Your task to perform on an android device: turn on the 24-hour format for clock Image 0: 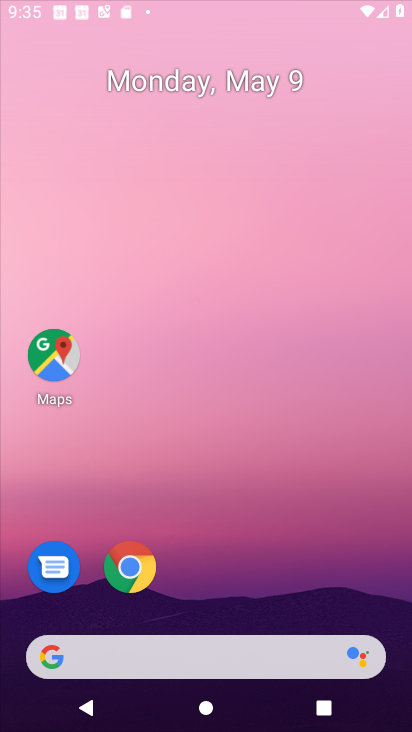
Step 0: click (347, 15)
Your task to perform on an android device: turn on the 24-hour format for clock Image 1: 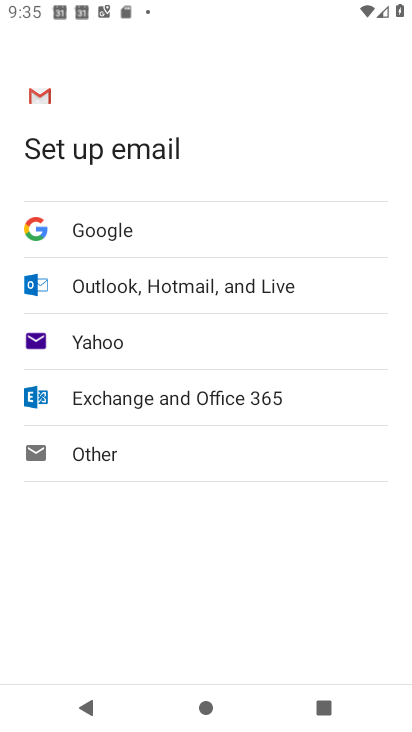
Step 1: drag from (156, 561) to (208, 278)
Your task to perform on an android device: turn on the 24-hour format for clock Image 2: 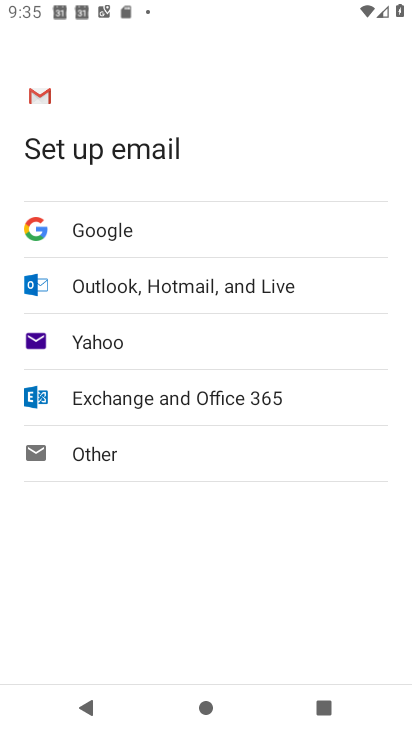
Step 2: press home button
Your task to perform on an android device: turn on the 24-hour format for clock Image 3: 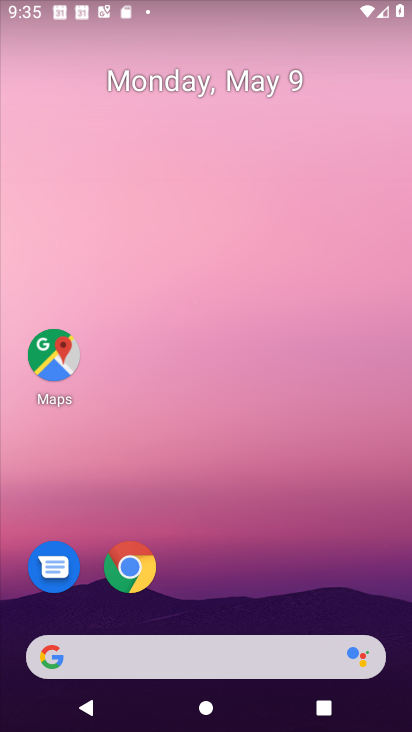
Step 3: drag from (219, 599) to (290, 192)
Your task to perform on an android device: turn on the 24-hour format for clock Image 4: 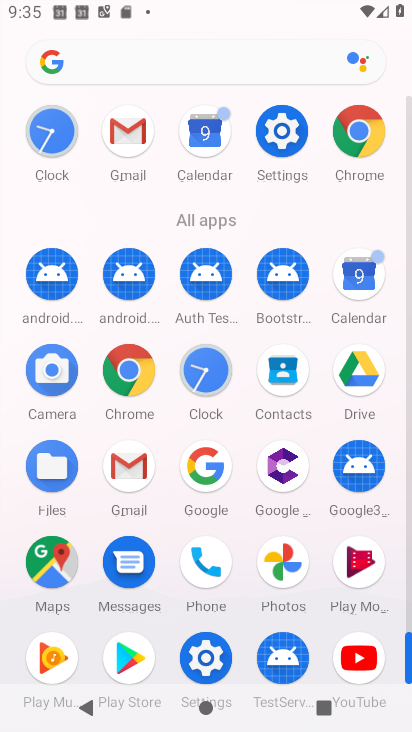
Step 4: click (205, 380)
Your task to perform on an android device: turn on the 24-hour format for clock Image 5: 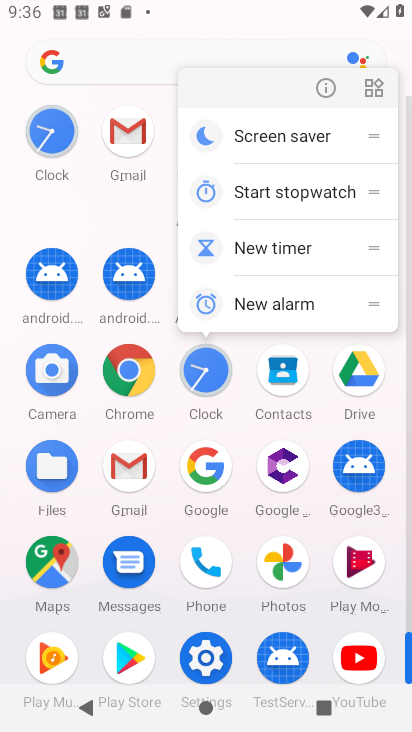
Step 5: click (316, 76)
Your task to perform on an android device: turn on the 24-hour format for clock Image 6: 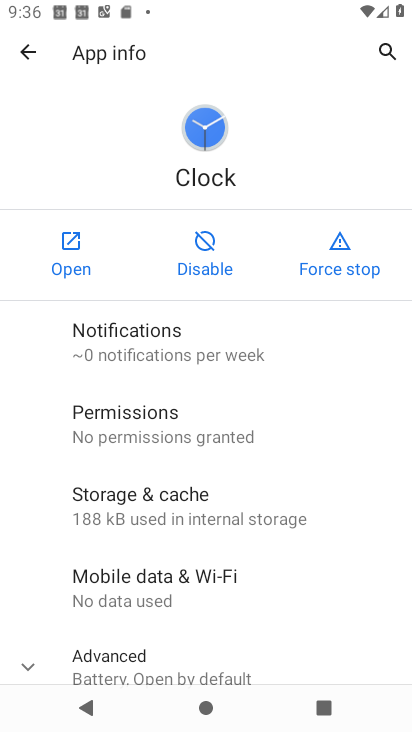
Step 6: click (85, 243)
Your task to perform on an android device: turn on the 24-hour format for clock Image 7: 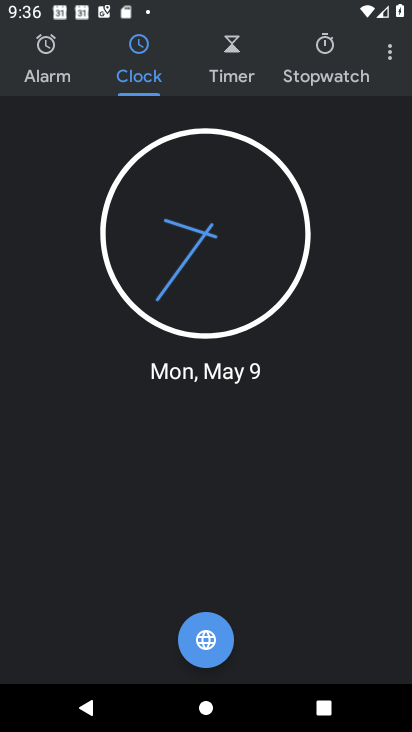
Step 7: click (391, 45)
Your task to perform on an android device: turn on the 24-hour format for clock Image 8: 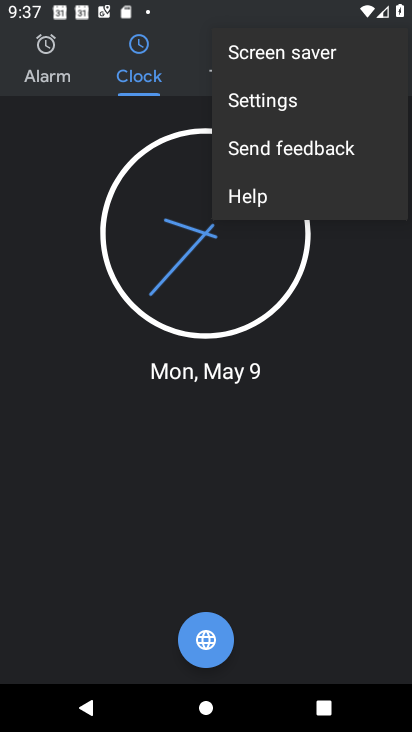
Step 8: click (274, 97)
Your task to perform on an android device: turn on the 24-hour format for clock Image 9: 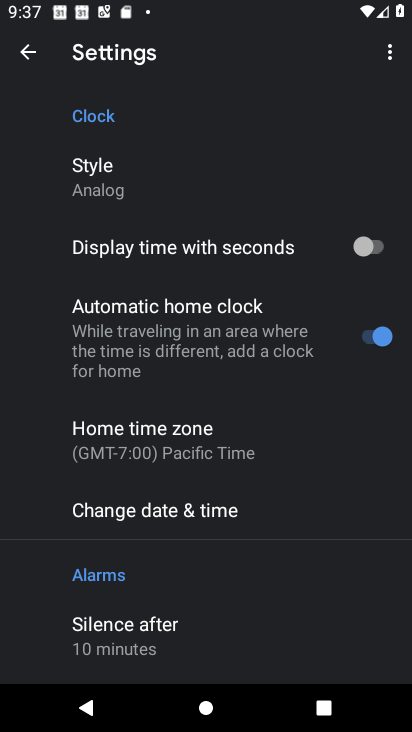
Step 9: click (184, 511)
Your task to perform on an android device: turn on the 24-hour format for clock Image 10: 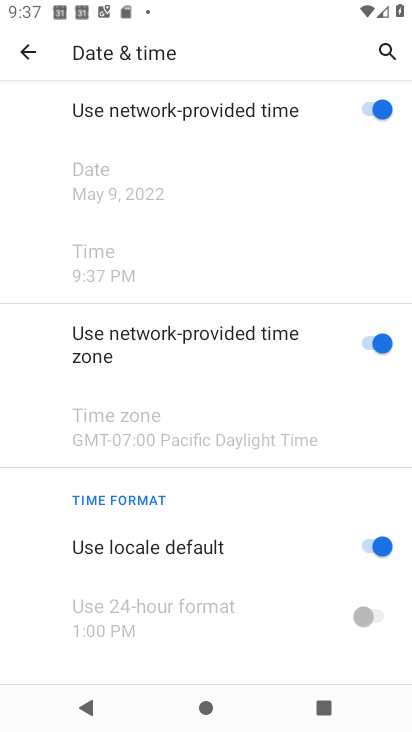
Step 10: drag from (238, 572) to (331, 235)
Your task to perform on an android device: turn on the 24-hour format for clock Image 11: 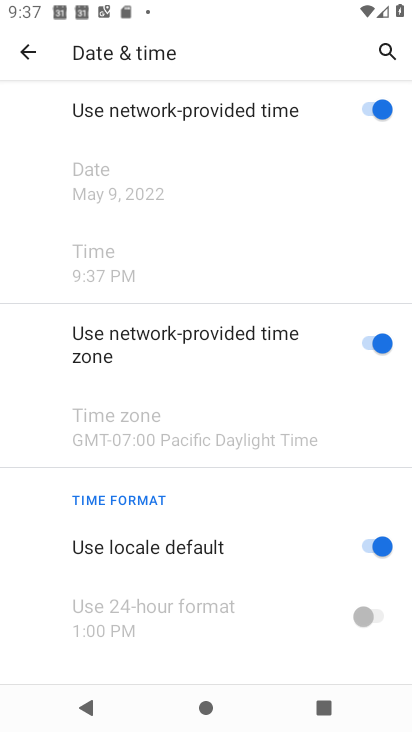
Step 11: click (369, 546)
Your task to perform on an android device: turn on the 24-hour format for clock Image 12: 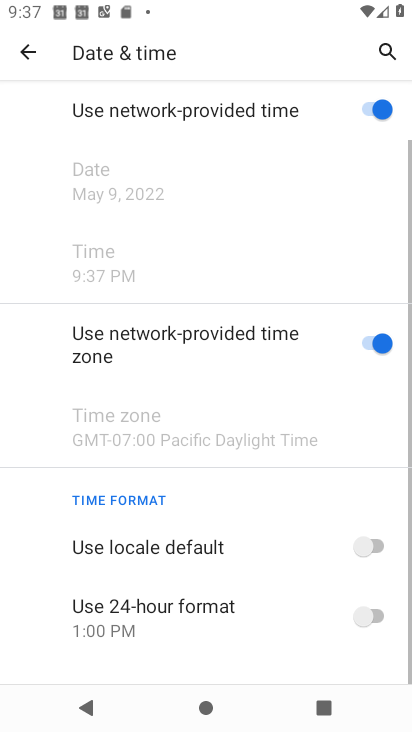
Step 12: click (357, 624)
Your task to perform on an android device: turn on the 24-hour format for clock Image 13: 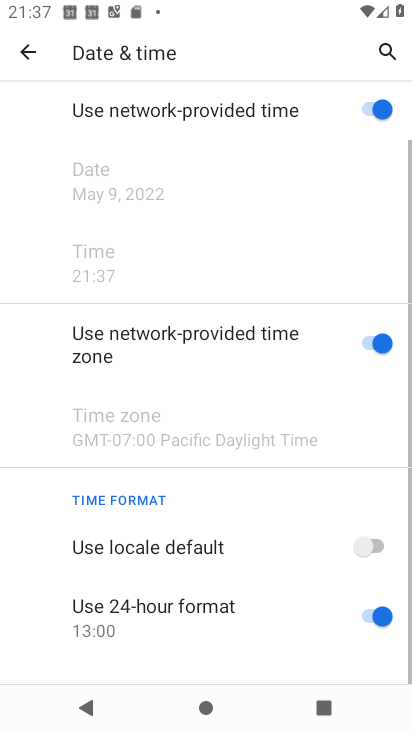
Step 13: task complete